Your task to perform on an android device: change notifications settings Image 0: 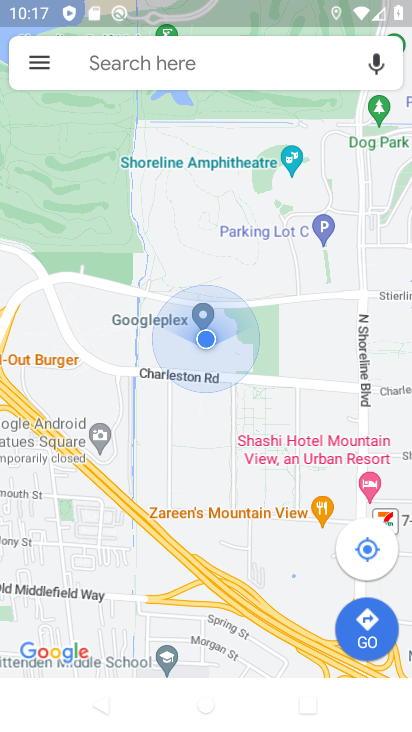
Step 0: press home button
Your task to perform on an android device: change notifications settings Image 1: 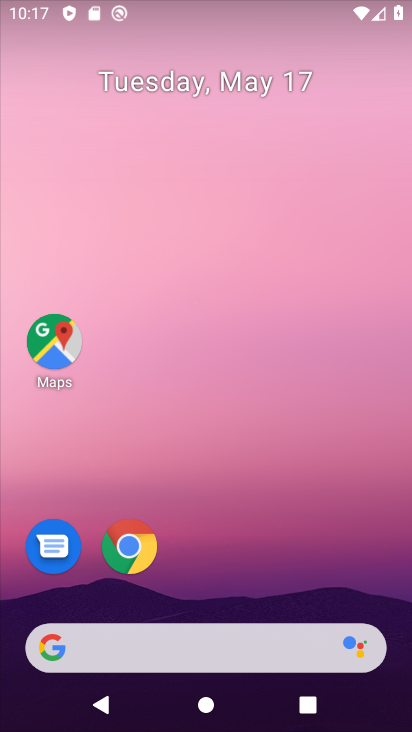
Step 1: drag from (264, 618) to (228, 1)
Your task to perform on an android device: change notifications settings Image 2: 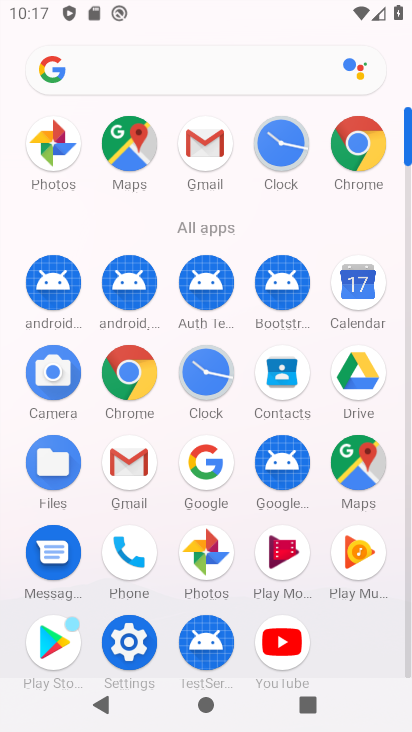
Step 2: click (132, 640)
Your task to perform on an android device: change notifications settings Image 3: 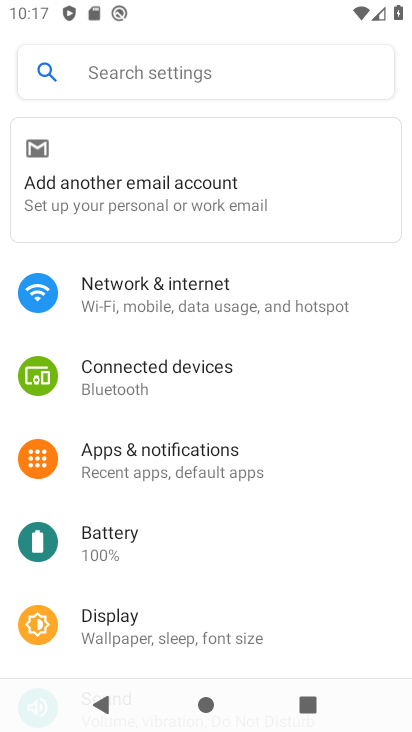
Step 3: click (168, 462)
Your task to perform on an android device: change notifications settings Image 4: 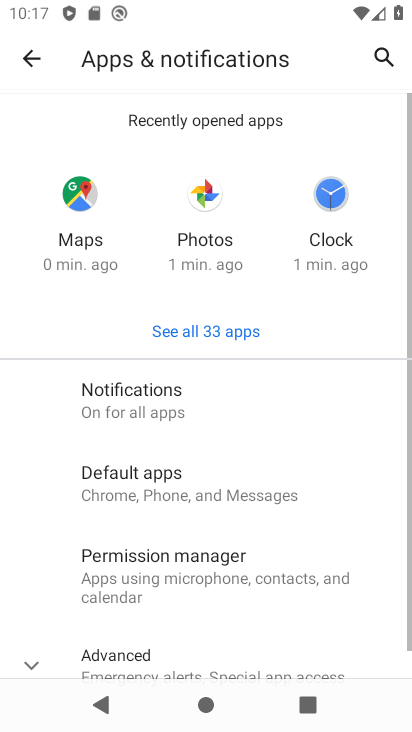
Step 4: click (121, 410)
Your task to perform on an android device: change notifications settings Image 5: 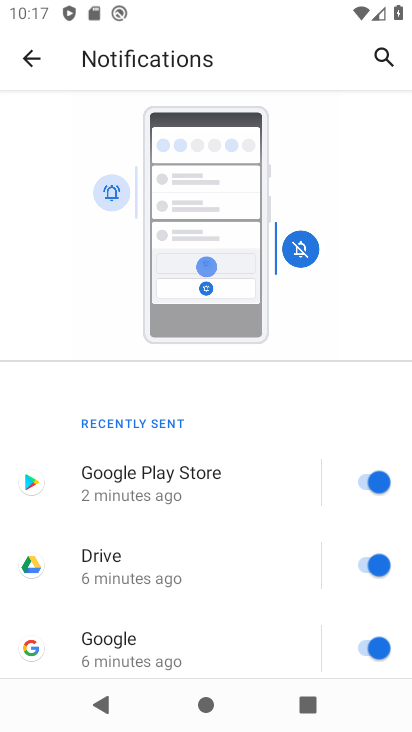
Step 5: drag from (163, 585) to (185, 60)
Your task to perform on an android device: change notifications settings Image 6: 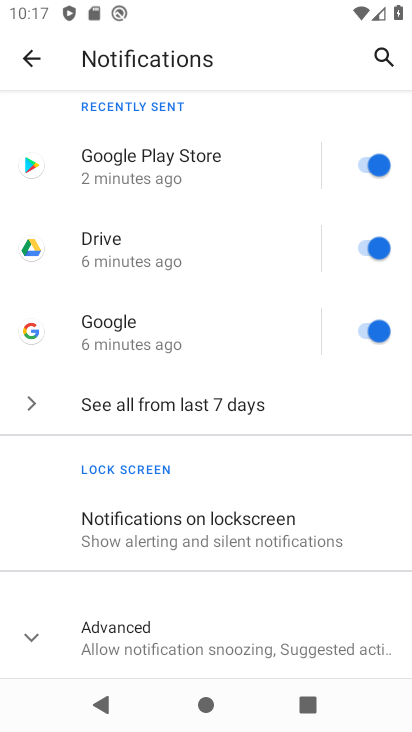
Step 6: drag from (160, 269) to (195, 117)
Your task to perform on an android device: change notifications settings Image 7: 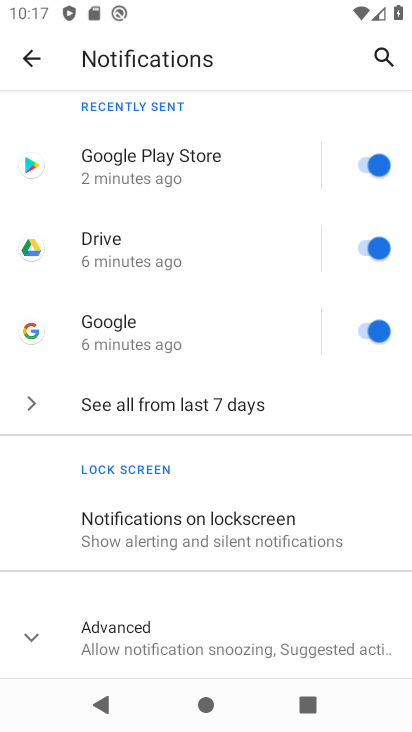
Step 7: click (141, 404)
Your task to perform on an android device: change notifications settings Image 8: 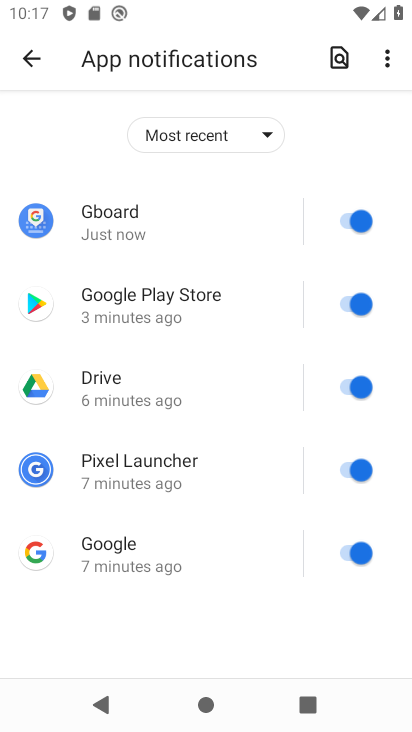
Step 8: click (225, 136)
Your task to perform on an android device: change notifications settings Image 9: 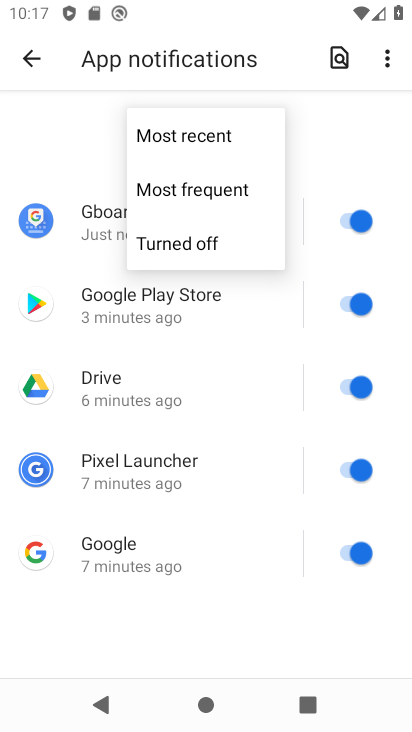
Step 9: click (155, 197)
Your task to perform on an android device: change notifications settings Image 10: 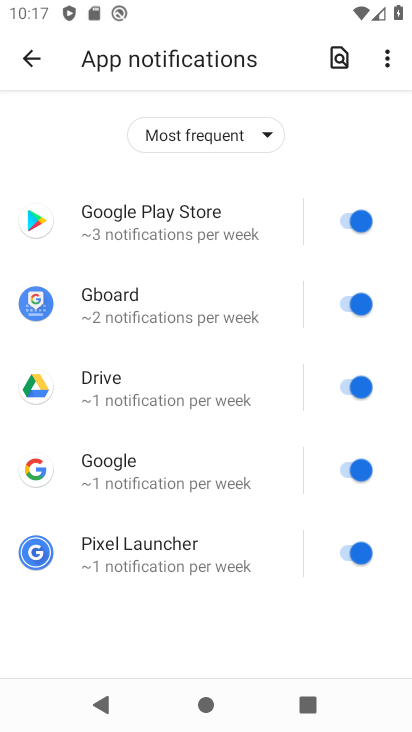
Step 10: task complete